Your task to perform on an android device: What's the weather? Image 0: 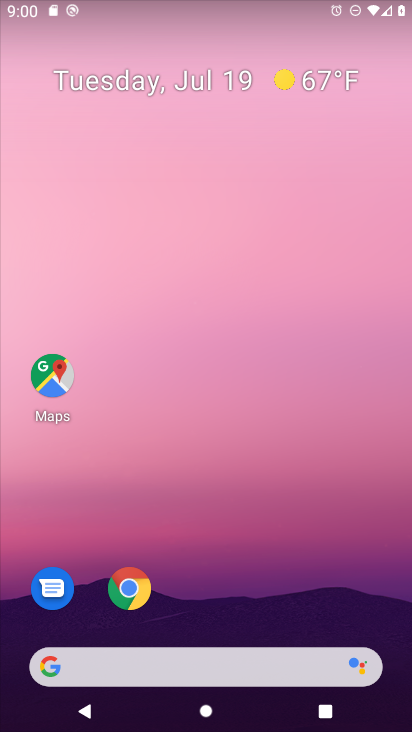
Step 0: click (291, 674)
Your task to perform on an android device: What's the weather? Image 1: 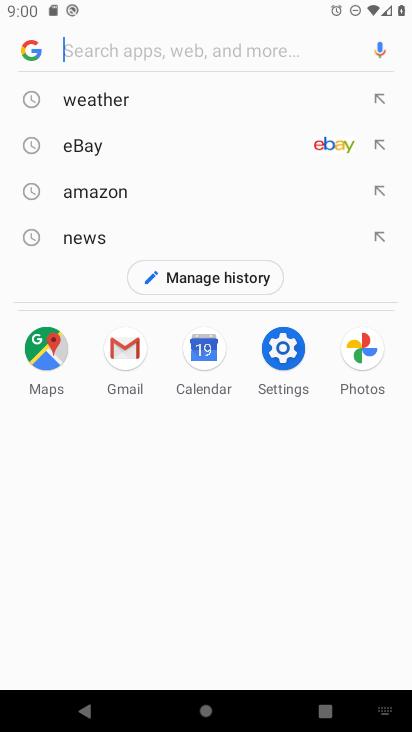
Step 1: click (204, 95)
Your task to perform on an android device: What's the weather? Image 2: 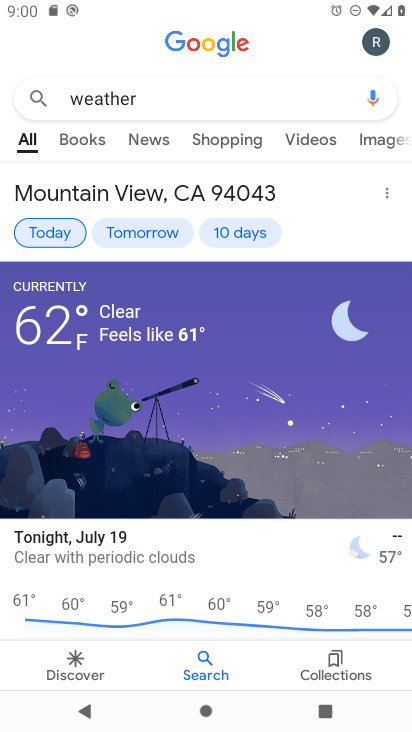
Step 2: task complete